Your task to perform on an android device: check storage Image 0: 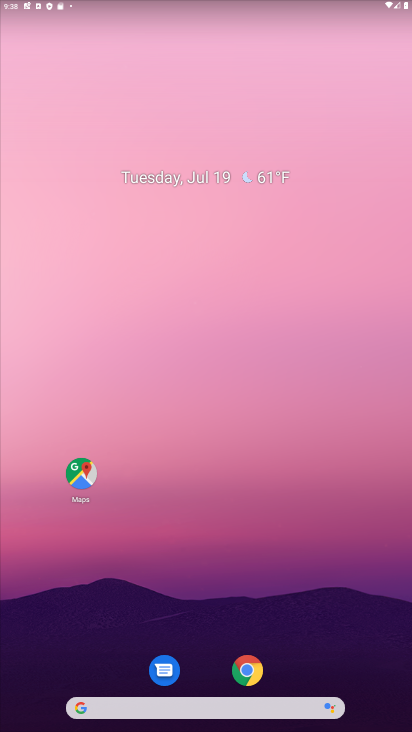
Step 0: drag from (87, 701) to (90, 23)
Your task to perform on an android device: check storage Image 1: 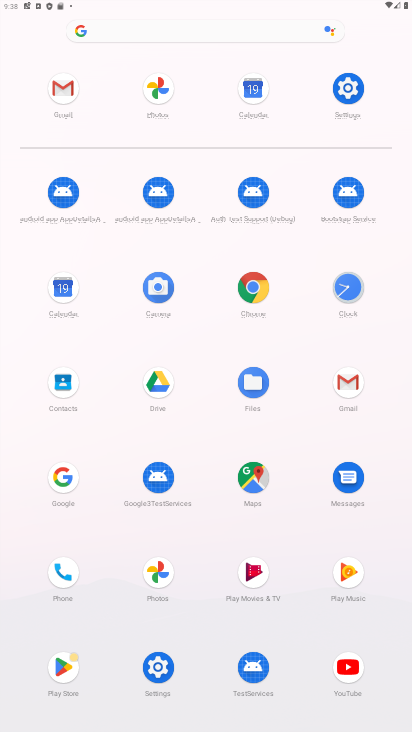
Step 1: click (350, 97)
Your task to perform on an android device: check storage Image 2: 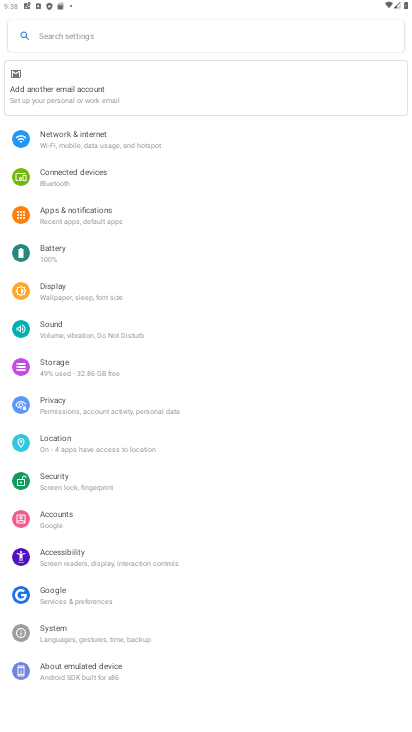
Step 2: click (80, 366)
Your task to perform on an android device: check storage Image 3: 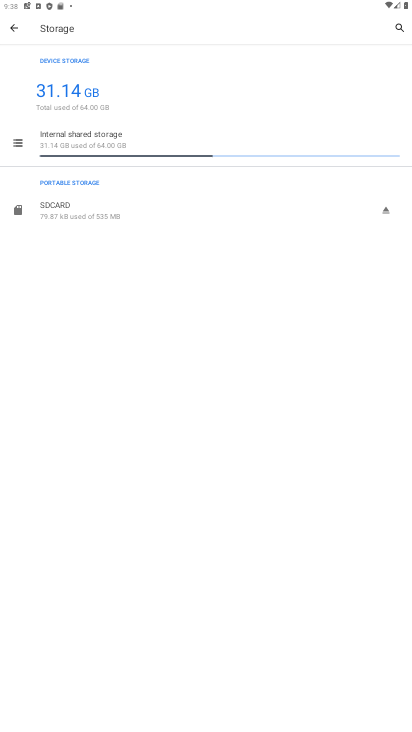
Step 3: task complete